Your task to perform on an android device: delete a single message in the gmail app Image 0: 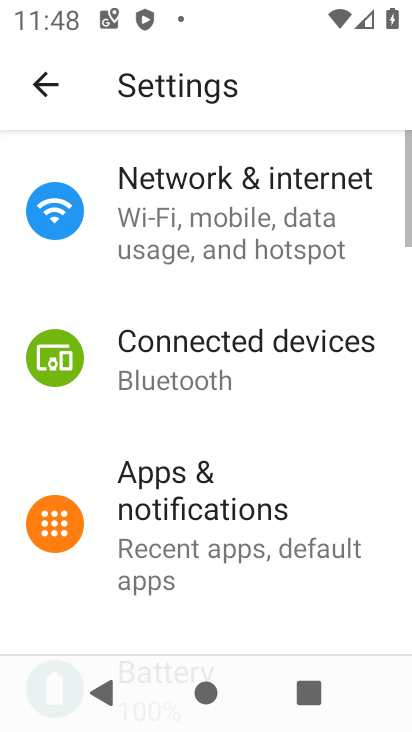
Step 0: press home button
Your task to perform on an android device: delete a single message in the gmail app Image 1: 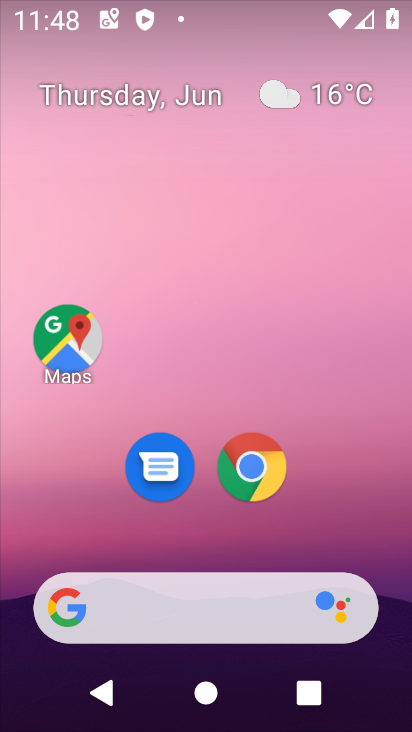
Step 1: drag from (400, 615) to (325, 53)
Your task to perform on an android device: delete a single message in the gmail app Image 2: 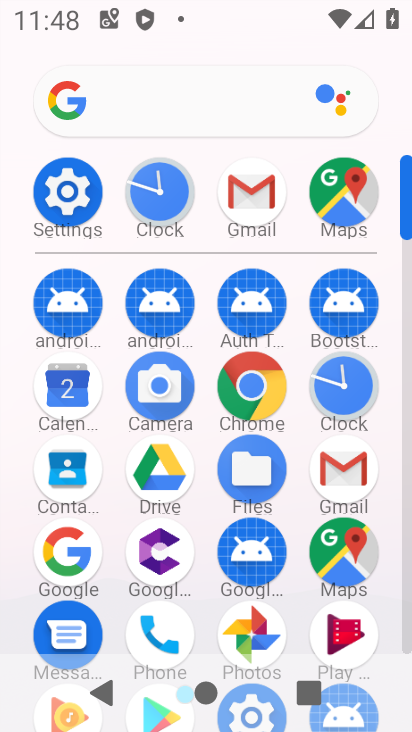
Step 2: click (406, 640)
Your task to perform on an android device: delete a single message in the gmail app Image 3: 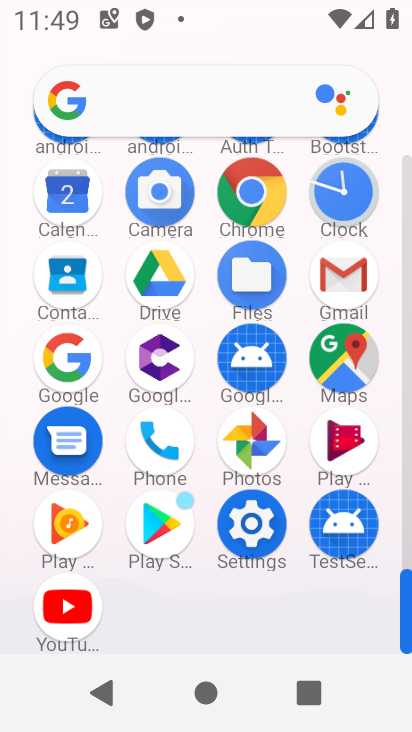
Step 3: click (344, 278)
Your task to perform on an android device: delete a single message in the gmail app Image 4: 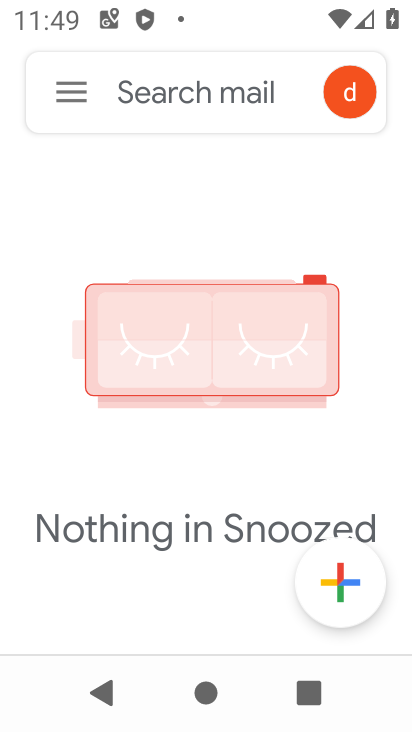
Step 4: click (63, 89)
Your task to perform on an android device: delete a single message in the gmail app Image 5: 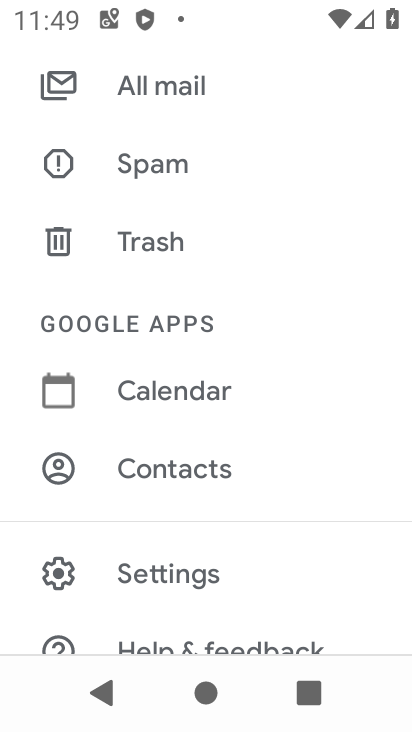
Step 5: drag from (228, 258) to (227, 391)
Your task to perform on an android device: delete a single message in the gmail app Image 6: 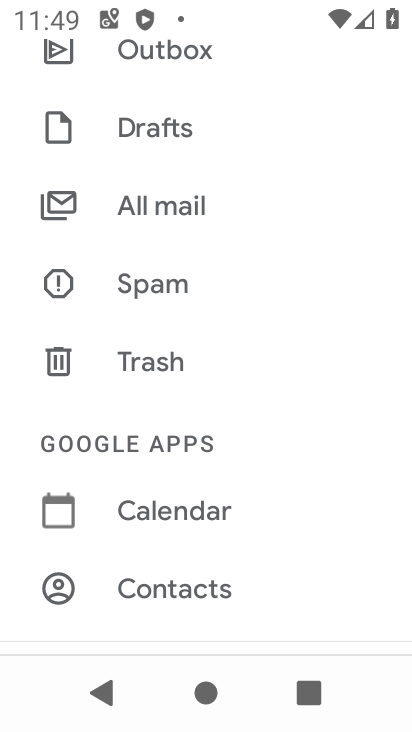
Step 6: click (139, 204)
Your task to perform on an android device: delete a single message in the gmail app Image 7: 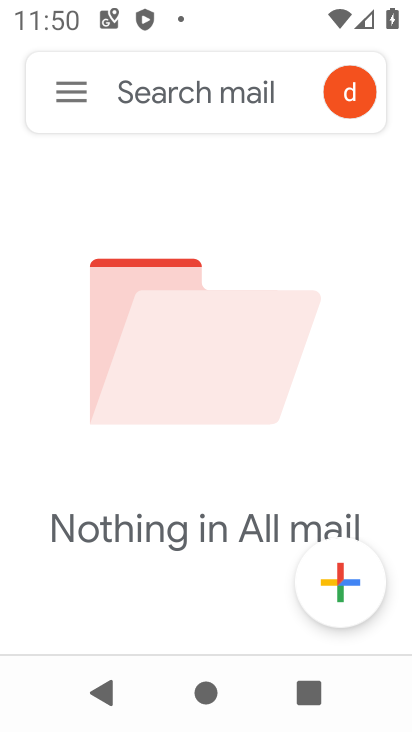
Step 7: task complete